Your task to perform on an android device: toggle javascript in the chrome app Image 0: 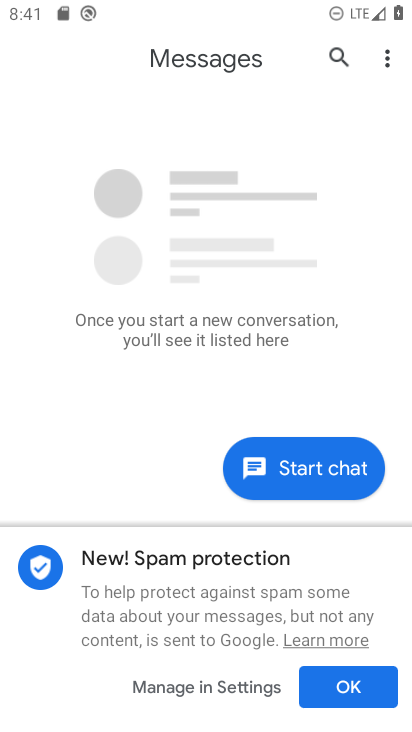
Step 0: press home button
Your task to perform on an android device: toggle javascript in the chrome app Image 1: 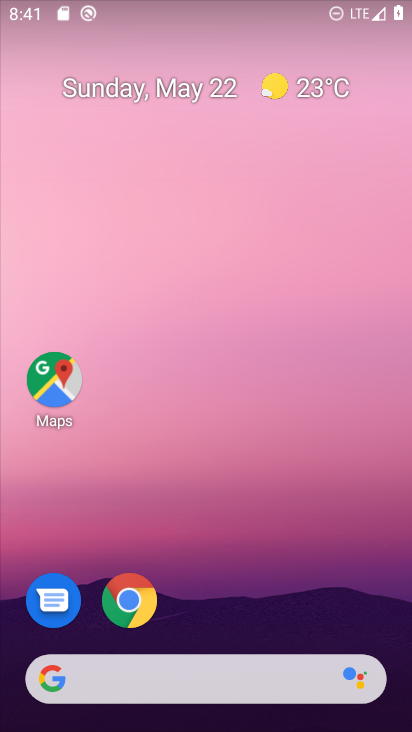
Step 1: drag from (345, 613) to (302, 57)
Your task to perform on an android device: toggle javascript in the chrome app Image 2: 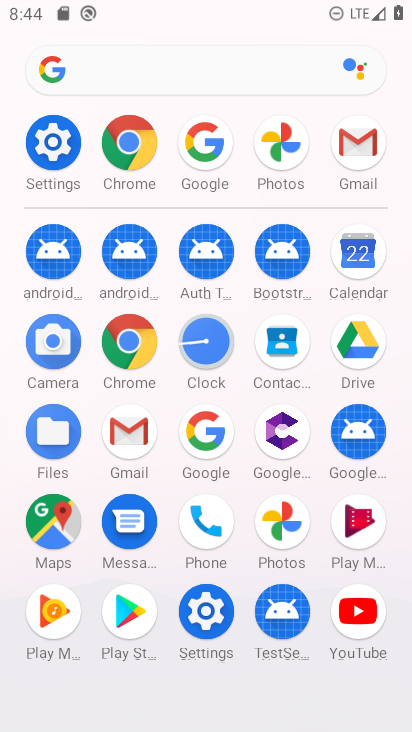
Step 2: click (134, 343)
Your task to perform on an android device: toggle javascript in the chrome app Image 3: 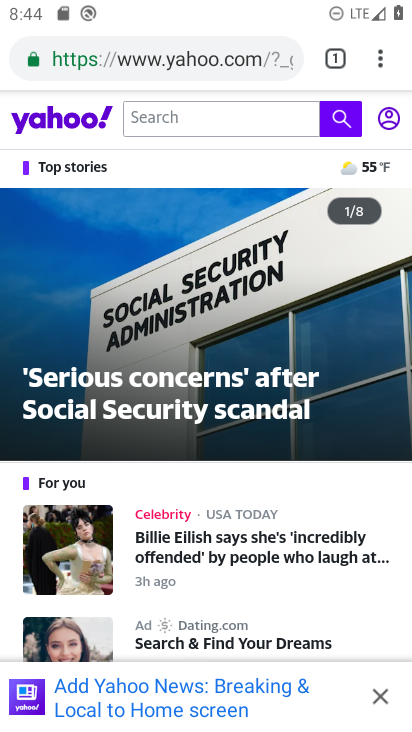
Step 3: press back button
Your task to perform on an android device: toggle javascript in the chrome app Image 4: 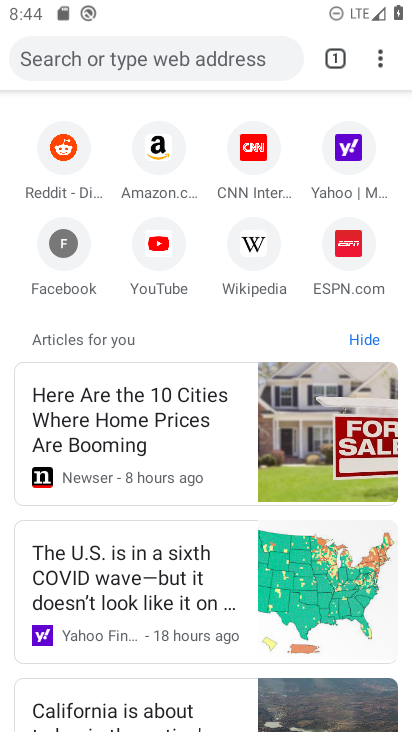
Step 4: click (381, 55)
Your task to perform on an android device: toggle javascript in the chrome app Image 5: 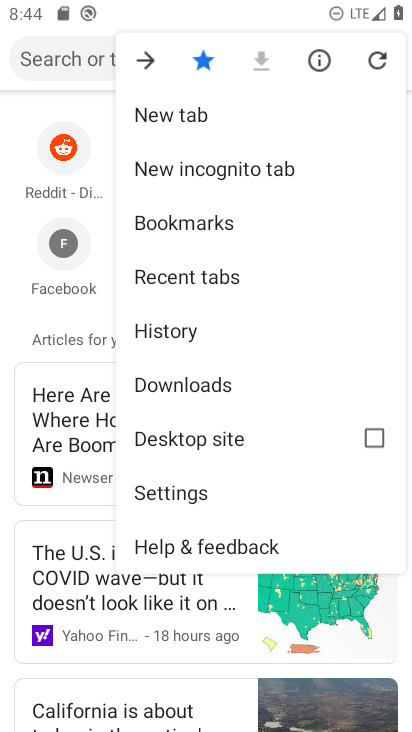
Step 5: click (258, 490)
Your task to perform on an android device: toggle javascript in the chrome app Image 6: 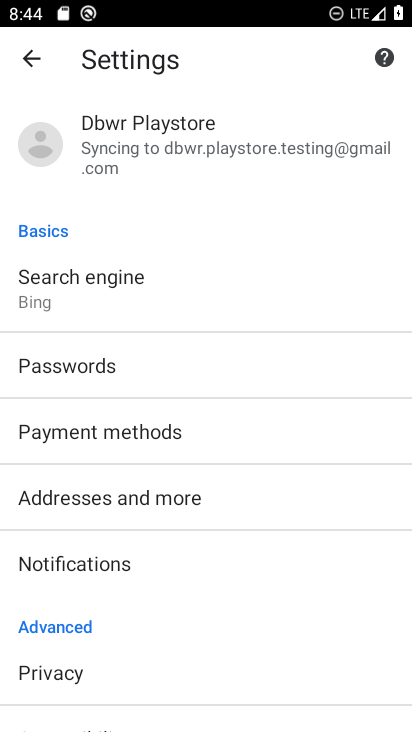
Step 6: drag from (135, 689) to (162, 179)
Your task to perform on an android device: toggle javascript in the chrome app Image 7: 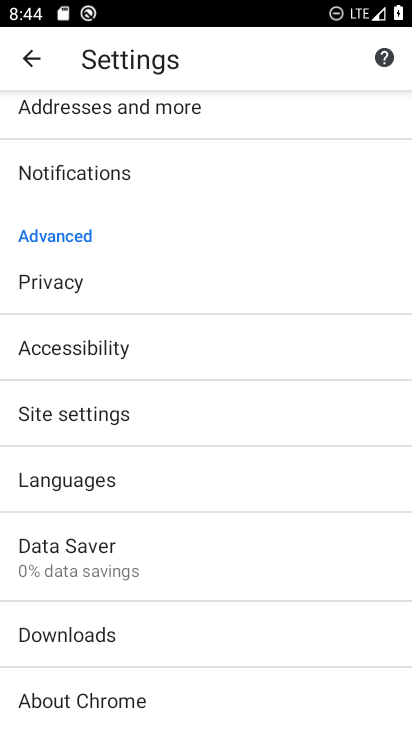
Step 7: click (109, 419)
Your task to perform on an android device: toggle javascript in the chrome app Image 8: 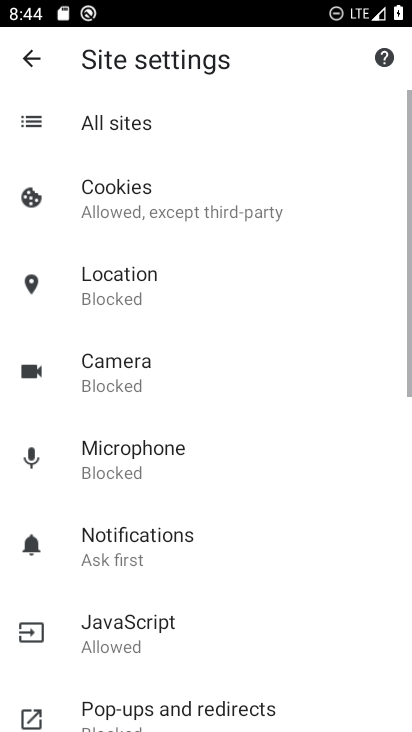
Step 8: click (153, 631)
Your task to perform on an android device: toggle javascript in the chrome app Image 9: 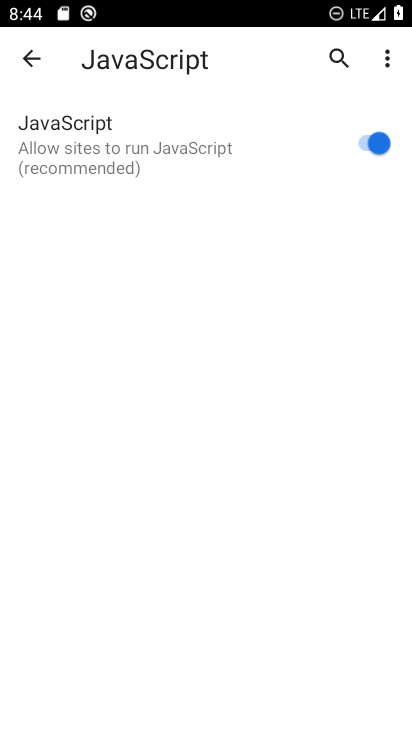
Step 9: click (354, 147)
Your task to perform on an android device: toggle javascript in the chrome app Image 10: 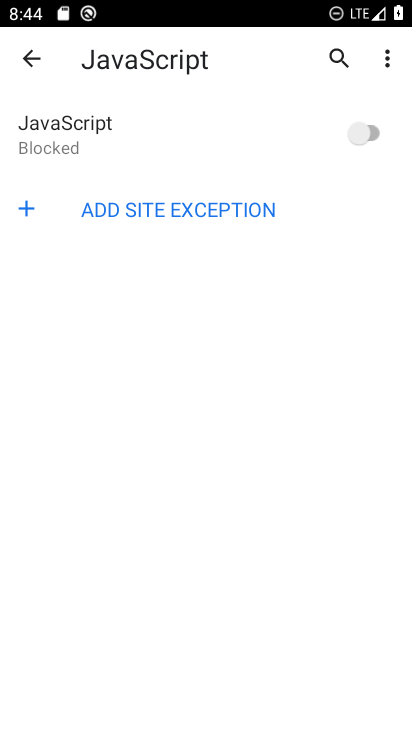
Step 10: task complete